Your task to perform on an android device: Go to location settings Image 0: 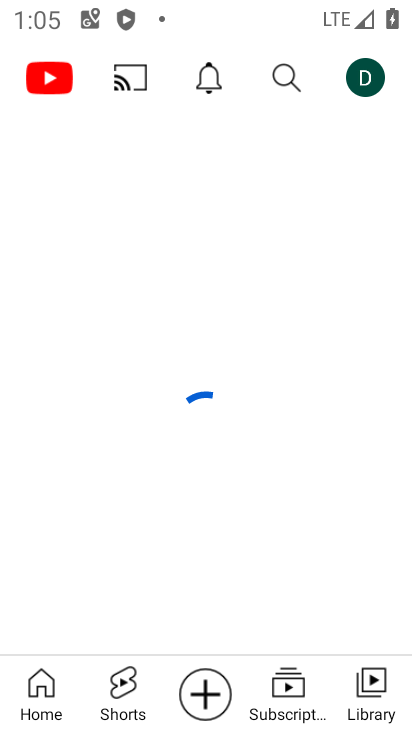
Step 0: press home button
Your task to perform on an android device: Go to location settings Image 1: 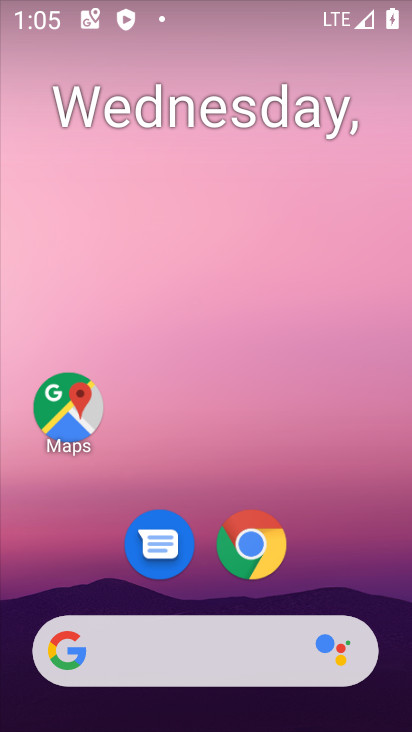
Step 1: drag from (383, 642) to (258, 20)
Your task to perform on an android device: Go to location settings Image 2: 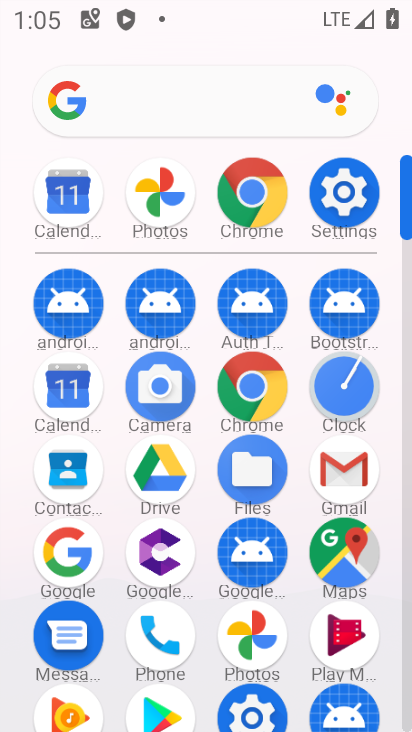
Step 2: click (330, 209)
Your task to perform on an android device: Go to location settings Image 3: 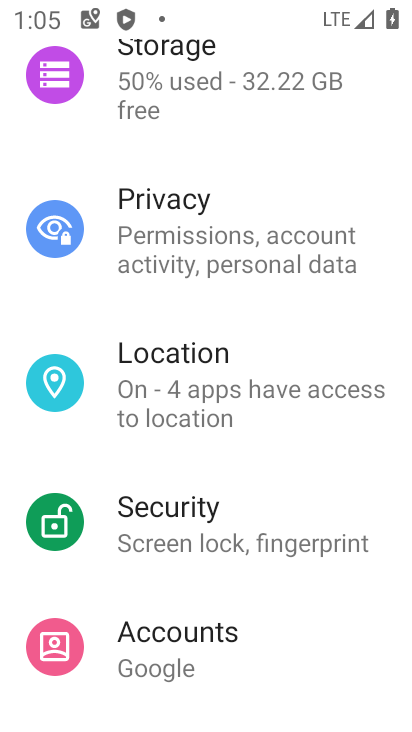
Step 3: drag from (224, 582) to (240, 145)
Your task to perform on an android device: Go to location settings Image 4: 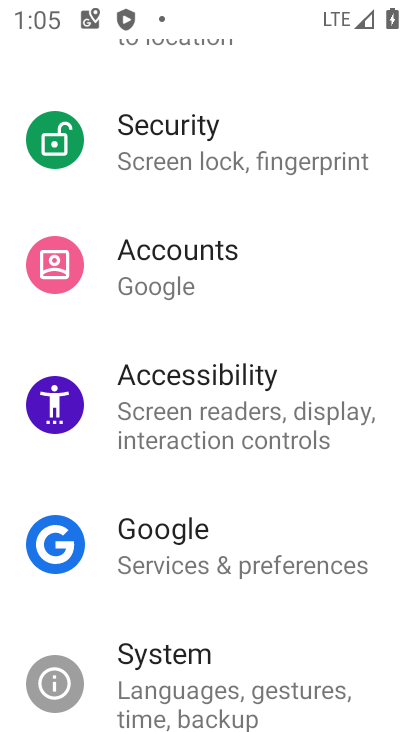
Step 4: drag from (190, 626) to (232, 147)
Your task to perform on an android device: Go to location settings Image 5: 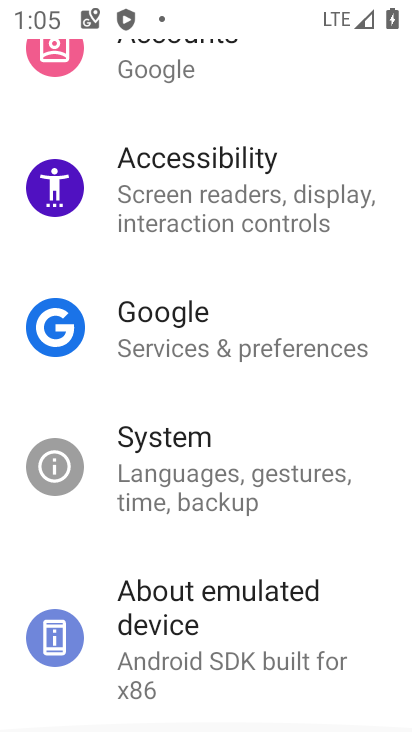
Step 5: drag from (232, 147) to (209, 626)
Your task to perform on an android device: Go to location settings Image 6: 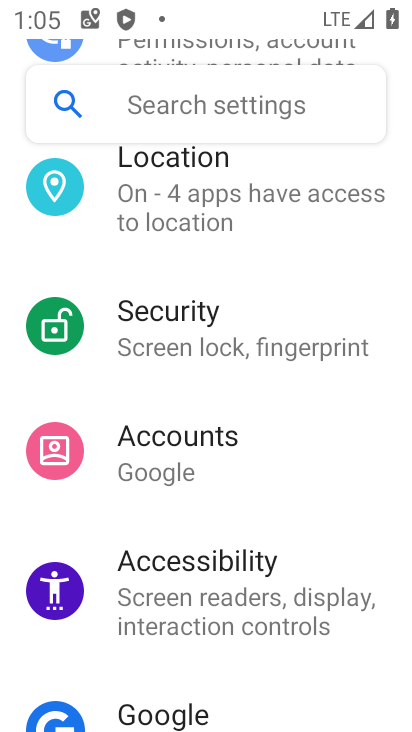
Step 6: drag from (165, 229) to (207, 495)
Your task to perform on an android device: Go to location settings Image 7: 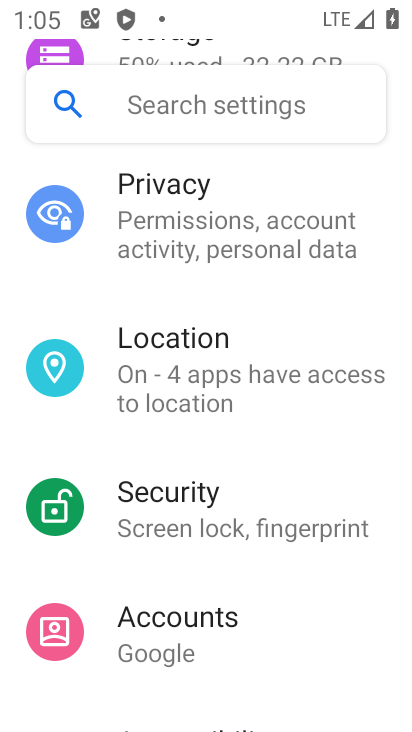
Step 7: click (121, 417)
Your task to perform on an android device: Go to location settings Image 8: 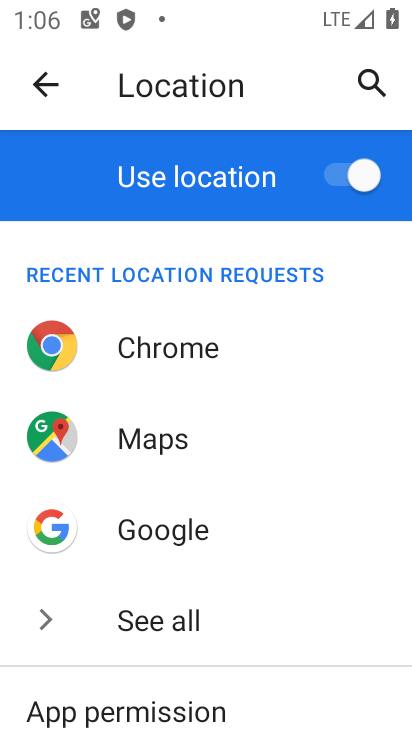
Step 8: task complete